Your task to perform on an android device: check the backup settings in the google photos Image 0: 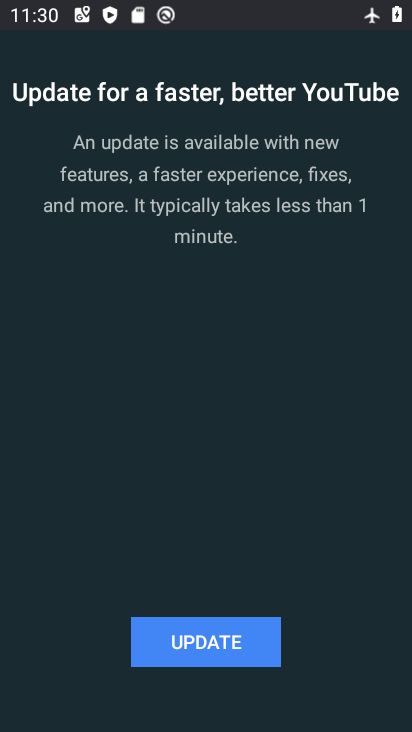
Step 0: press home button
Your task to perform on an android device: check the backup settings in the google photos Image 1: 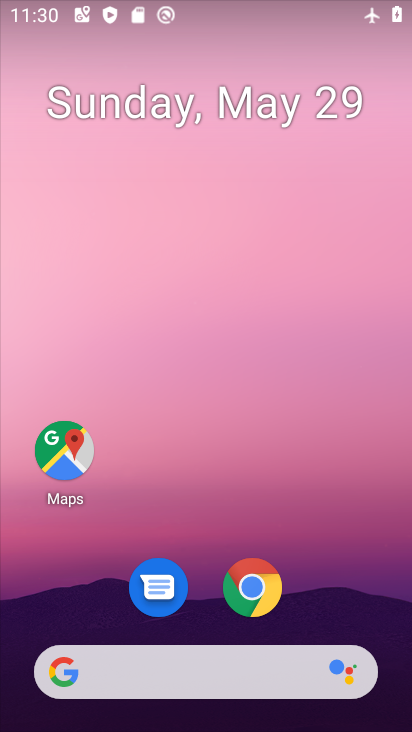
Step 1: drag from (332, 534) to (213, 97)
Your task to perform on an android device: check the backup settings in the google photos Image 2: 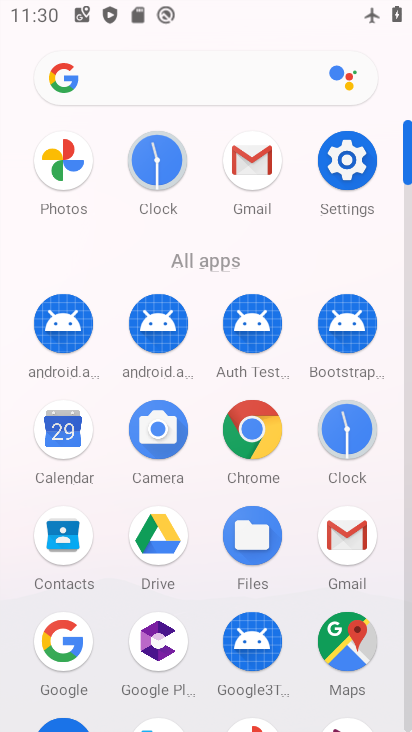
Step 2: click (64, 160)
Your task to perform on an android device: check the backup settings in the google photos Image 3: 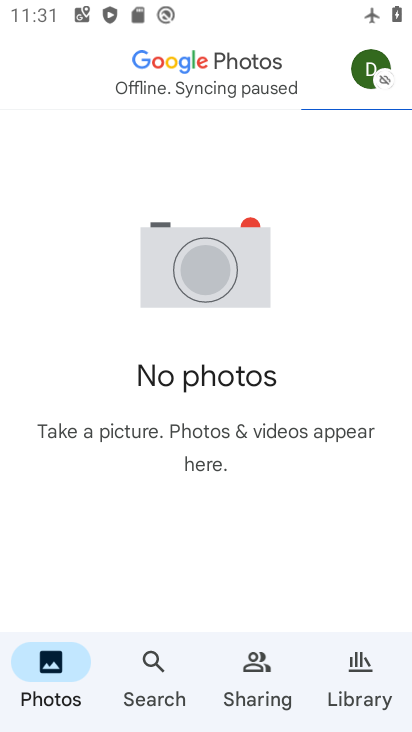
Step 3: click (376, 61)
Your task to perform on an android device: check the backup settings in the google photos Image 4: 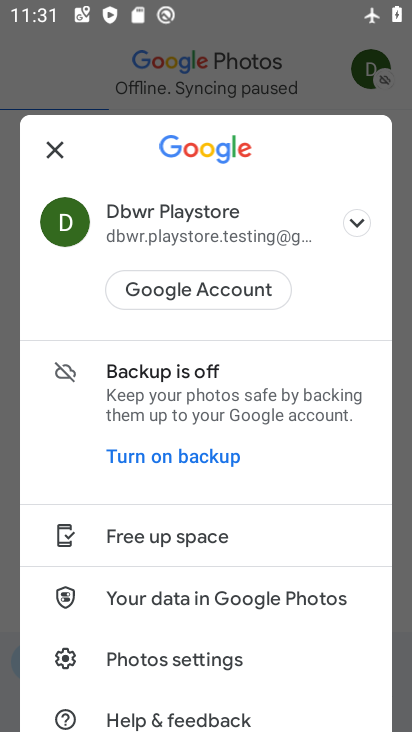
Step 4: drag from (252, 581) to (294, 171)
Your task to perform on an android device: check the backup settings in the google photos Image 5: 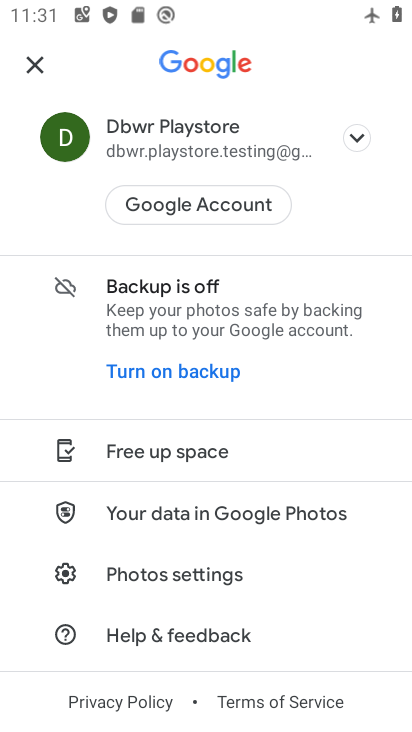
Step 5: click (227, 575)
Your task to perform on an android device: check the backup settings in the google photos Image 6: 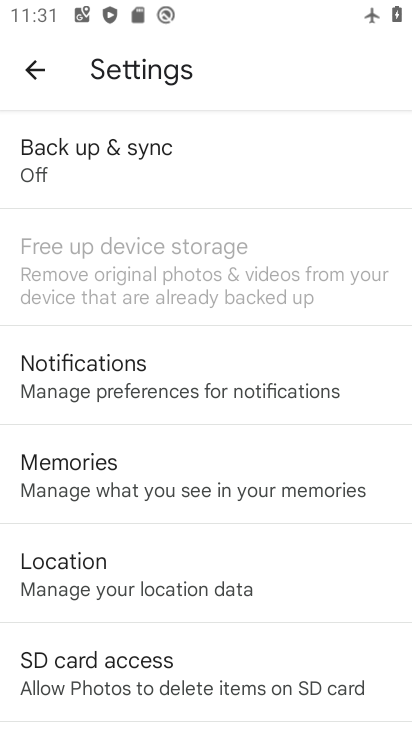
Step 6: click (200, 158)
Your task to perform on an android device: check the backup settings in the google photos Image 7: 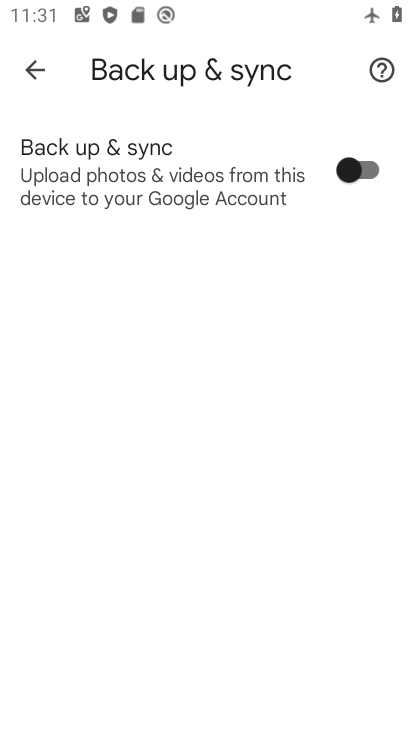
Step 7: click (368, 170)
Your task to perform on an android device: check the backup settings in the google photos Image 8: 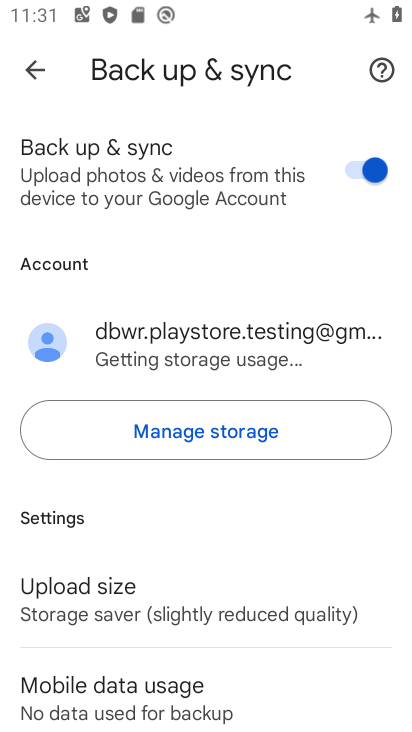
Step 8: task complete